Your task to perform on an android device: Search for usb-c to usb-a on ebay, select the first entry, add it to the cart, then select checkout. Image 0: 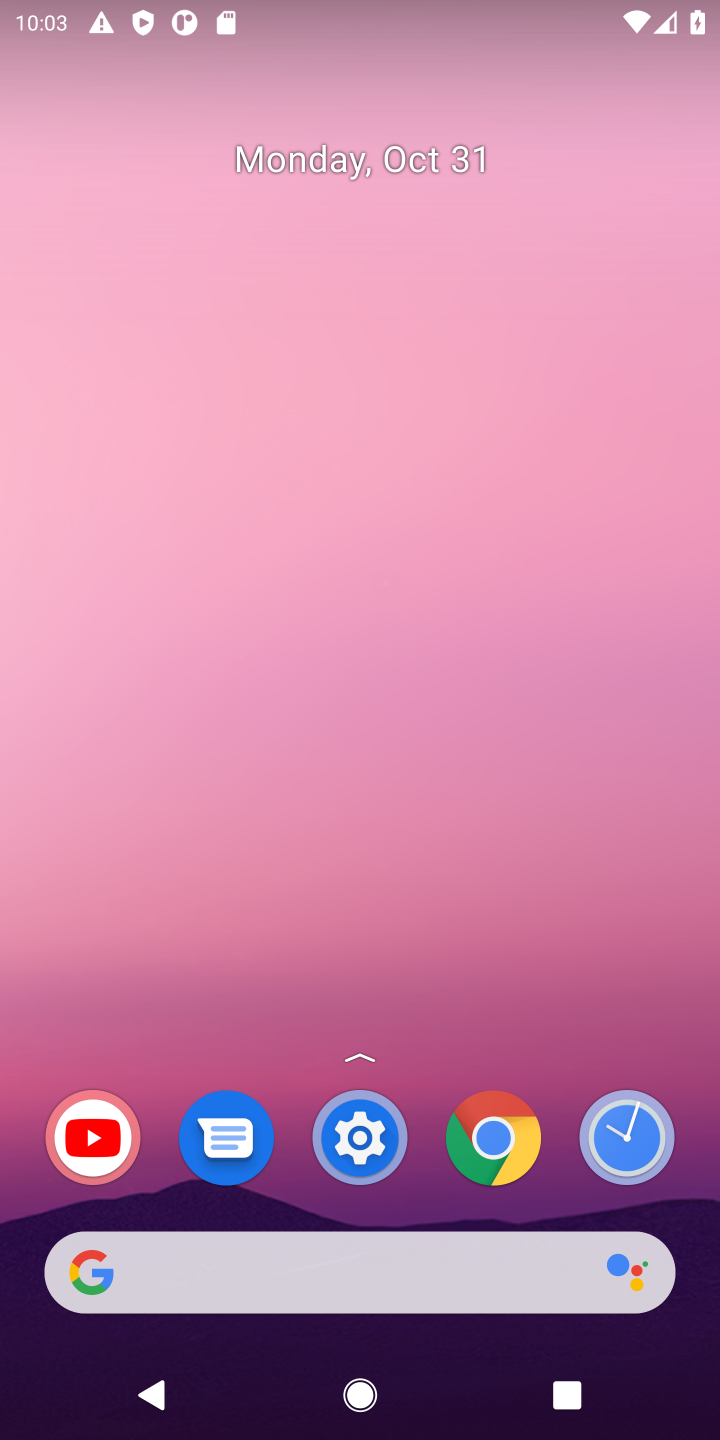
Step 0: click (469, 1114)
Your task to perform on an android device: Search for usb-c to usb-a on ebay, select the first entry, add it to the cart, then select checkout. Image 1: 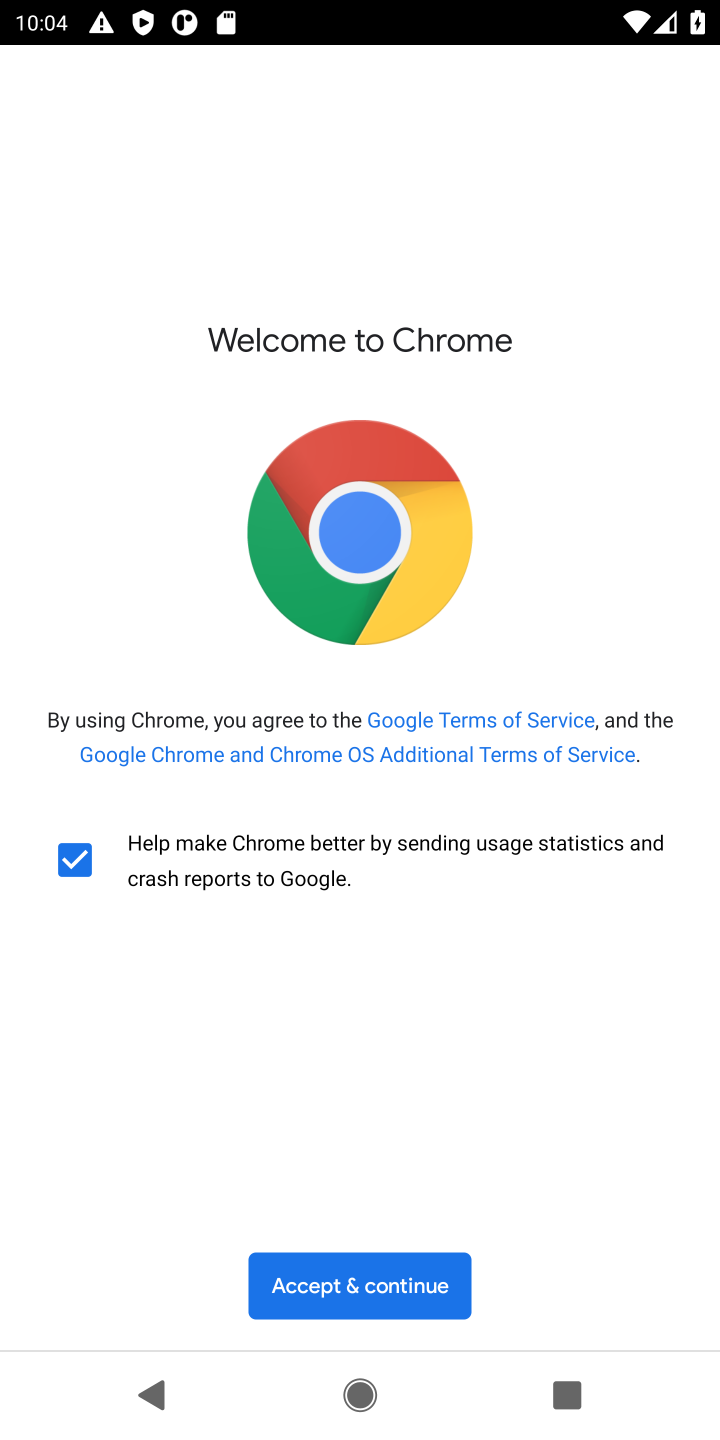
Step 1: click (291, 1286)
Your task to perform on an android device: Search for usb-c to usb-a on ebay, select the first entry, add it to the cart, then select checkout. Image 2: 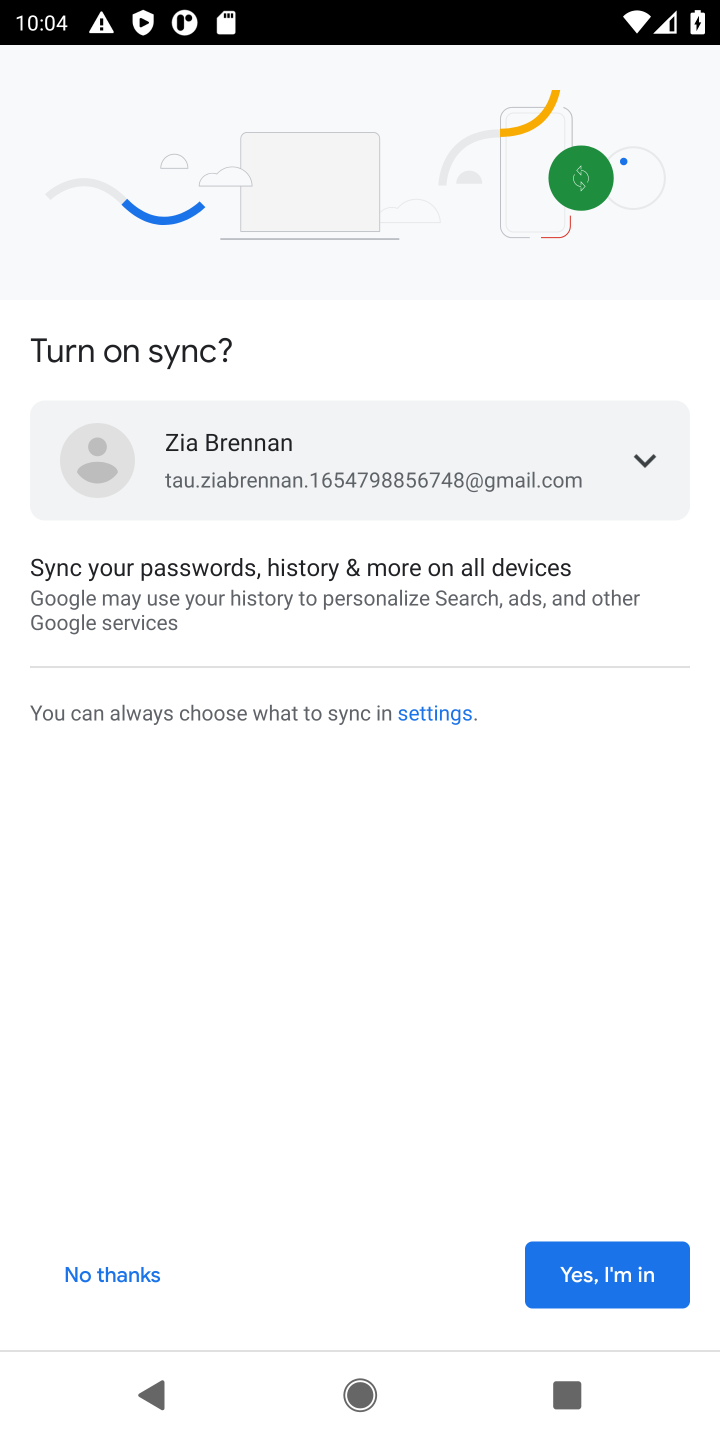
Step 2: click (605, 1290)
Your task to perform on an android device: Search for usb-c to usb-a on ebay, select the first entry, add it to the cart, then select checkout. Image 3: 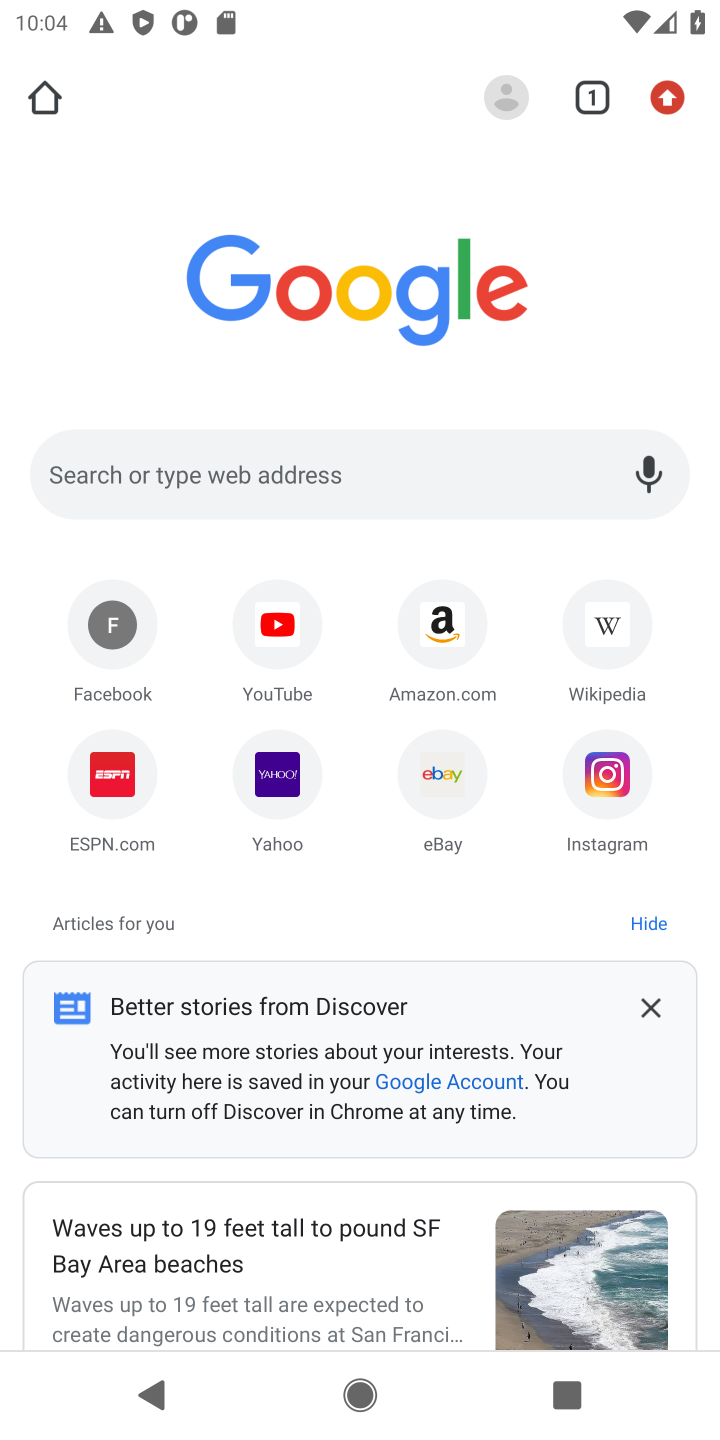
Step 3: click (531, 445)
Your task to perform on an android device: Search for usb-c to usb-a on ebay, select the first entry, add it to the cart, then select checkout. Image 4: 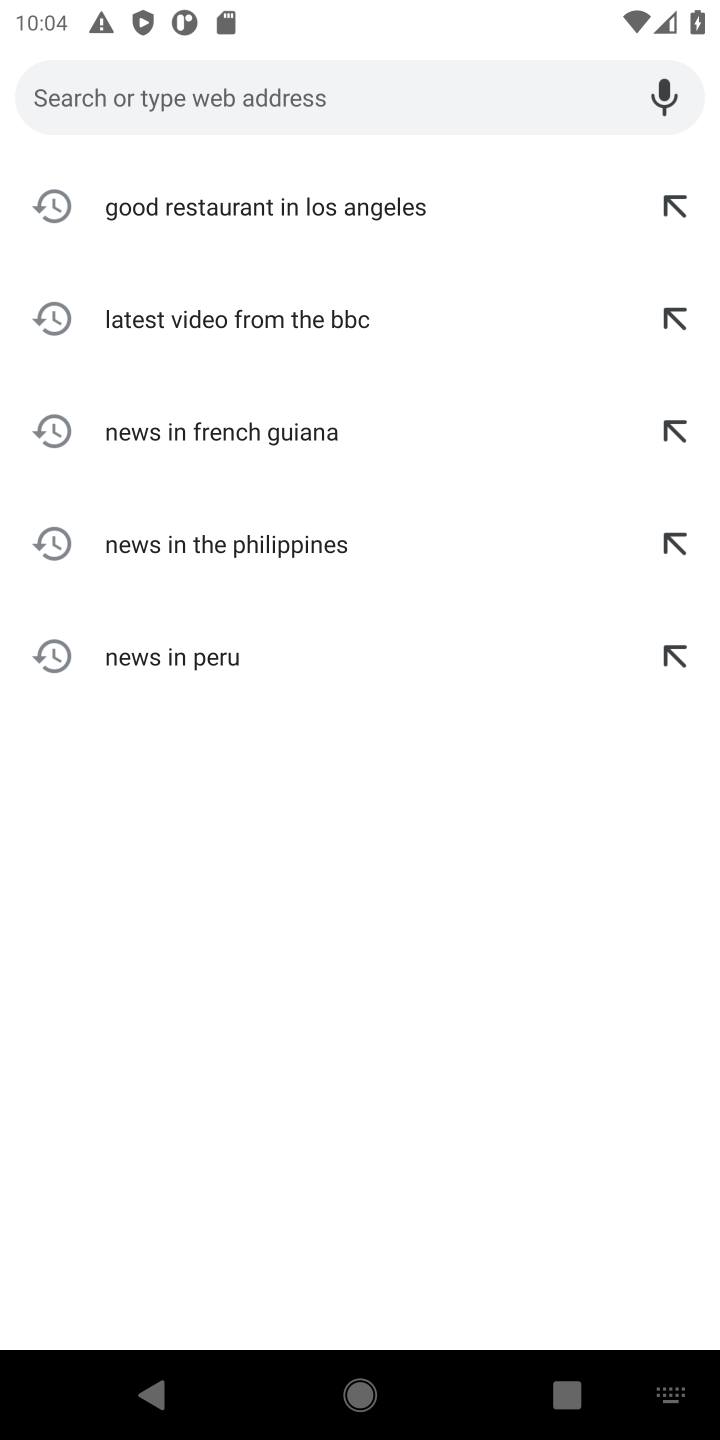
Step 4: press back button
Your task to perform on an android device: Search for usb-c to usb-a on ebay, select the first entry, add it to the cart, then select checkout. Image 5: 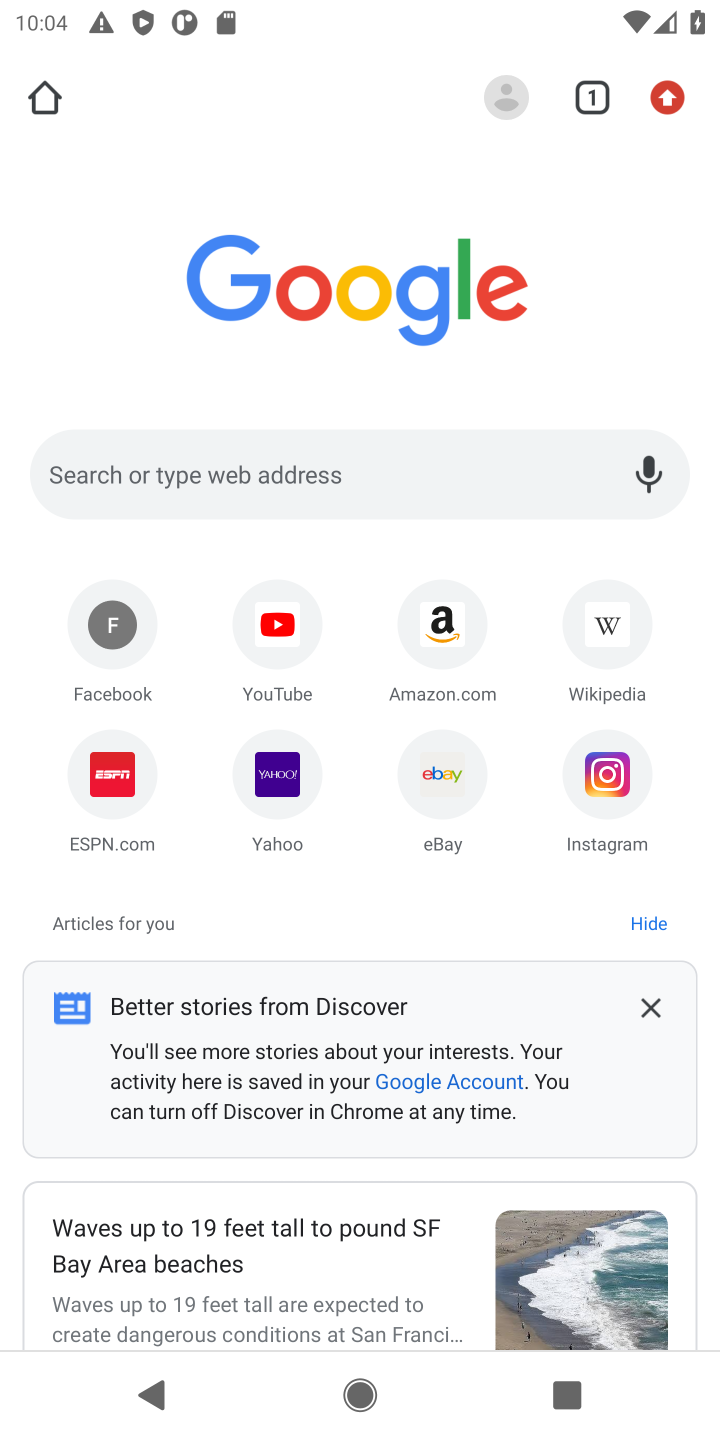
Step 5: click (463, 754)
Your task to perform on an android device: Search for usb-c to usb-a on ebay, select the first entry, add it to the cart, then select checkout. Image 6: 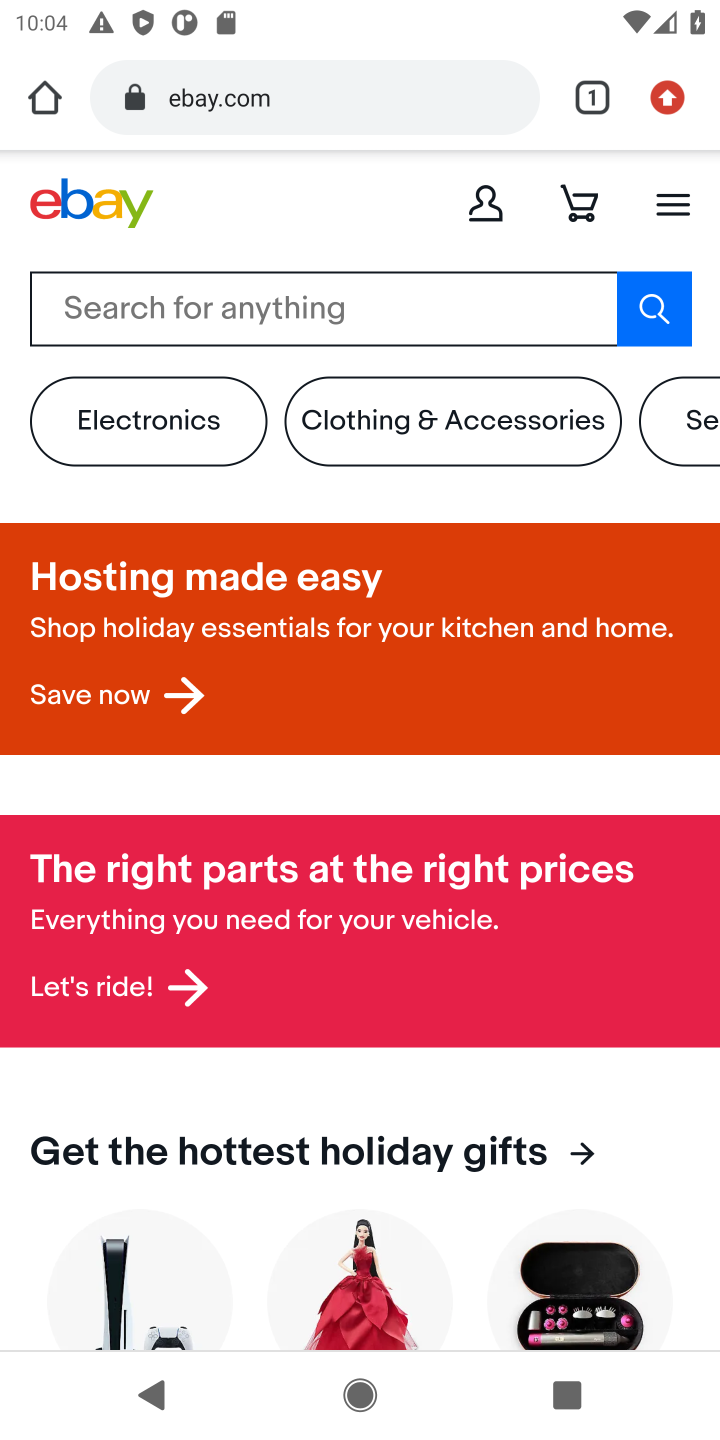
Step 6: click (413, 319)
Your task to perform on an android device: Search for usb-c to usb-a on ebay, select the first entry, add it to the cart, then select checkout. Image 7: 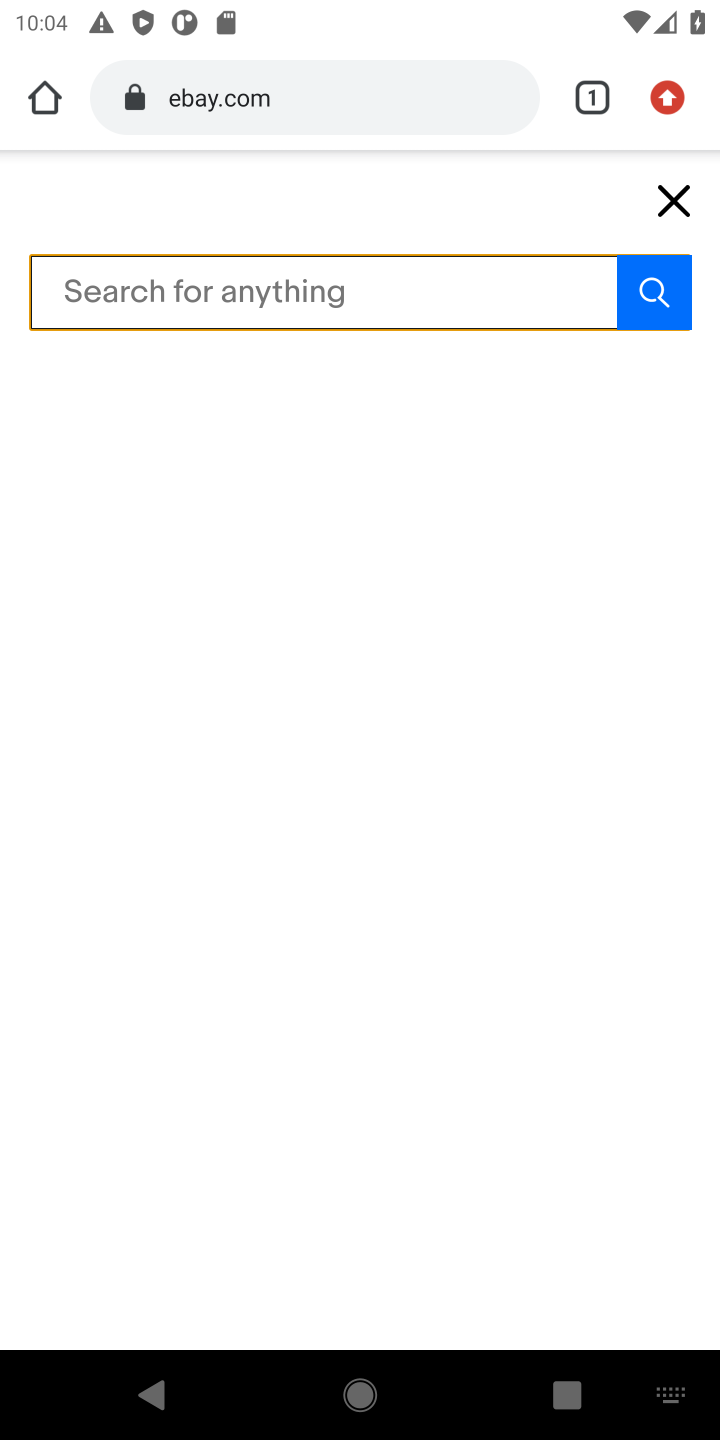
Step 7: type "usb-c to usb-a "
Your task to perform on an android device: Search for usb-c to usb-a on ebay, select the first entry, add it to the cart, then select checkout. Image 8: 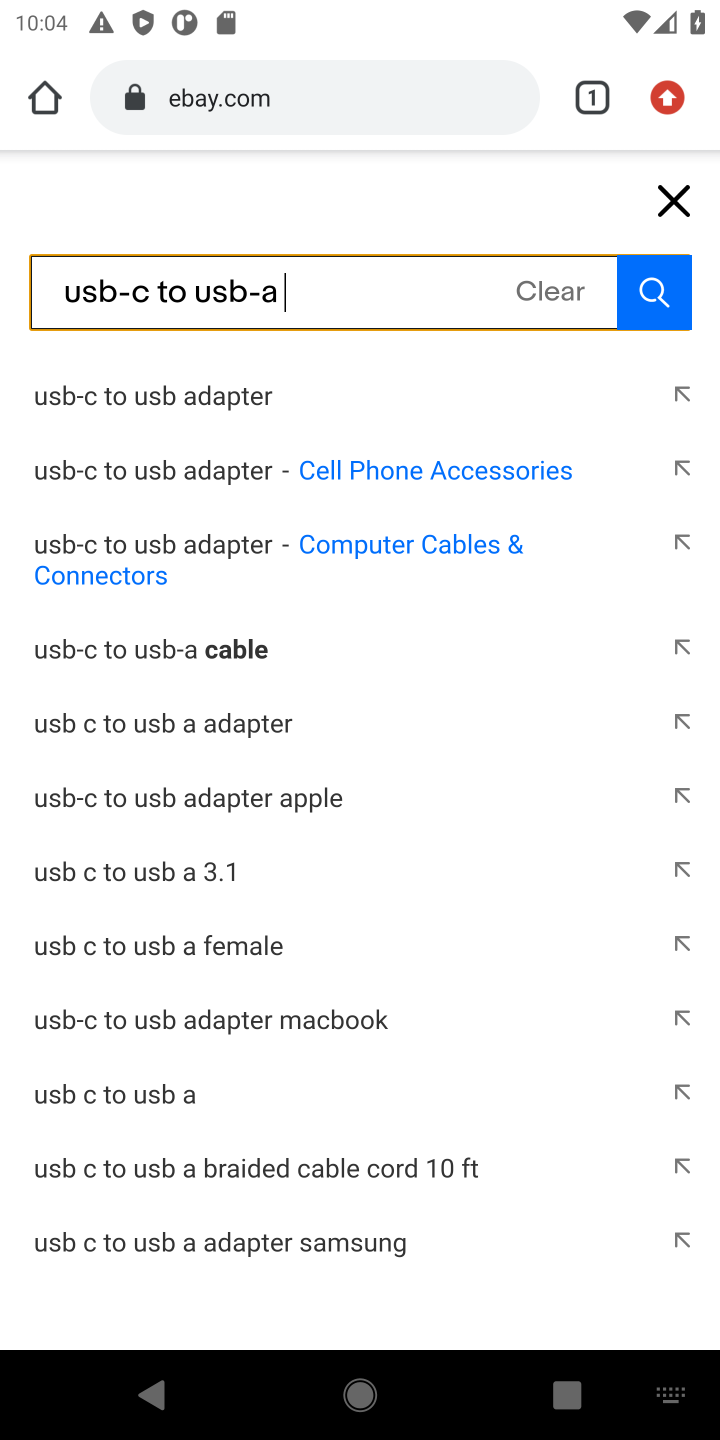
Step 8: click (645, 303)
Your task to perform on an android device: Search for usb-c to usb-a on ebay, select the first entry, add it to the cart, then select checkout. Image 9: 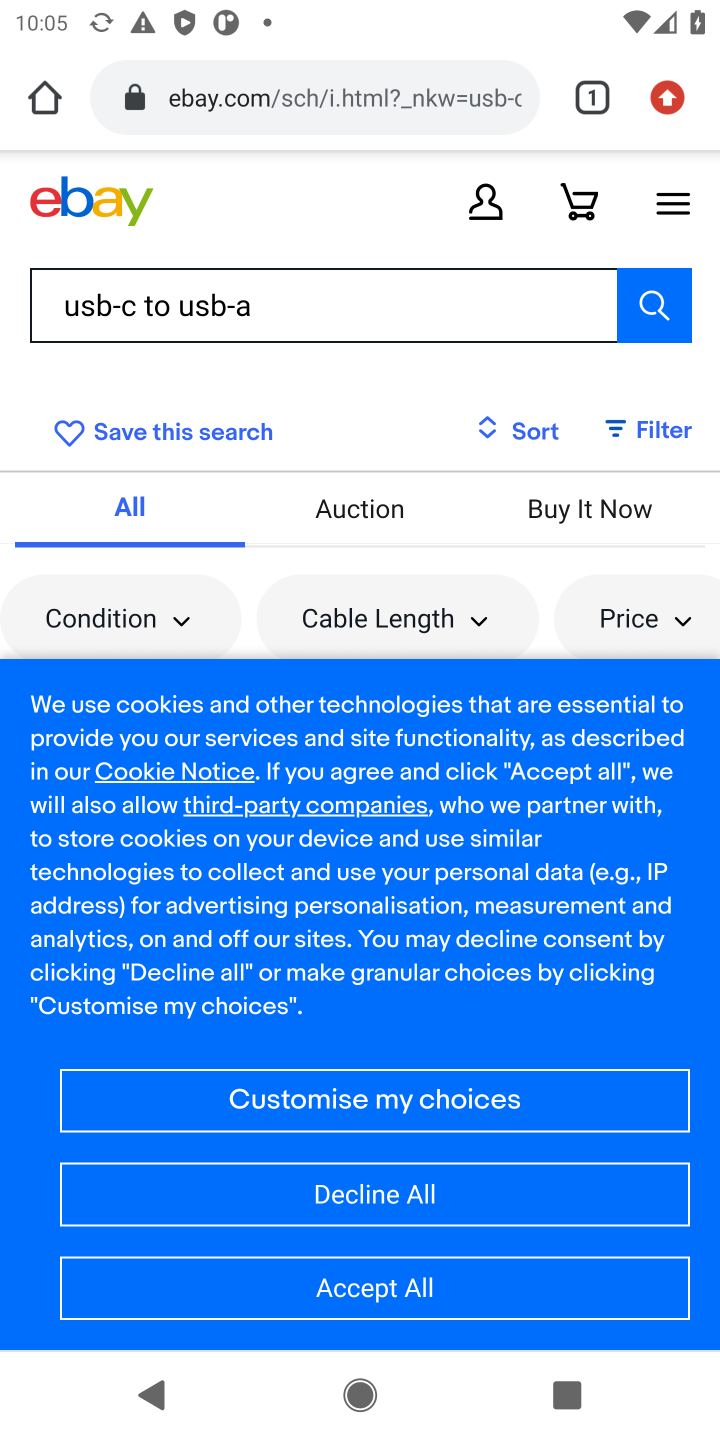
Step 9: click (515, 1277)
Your task to perform on an android device: Search for usb-c to usb-a on ebay, select the first entry, add it to the cart, then select checkout. Image 10: 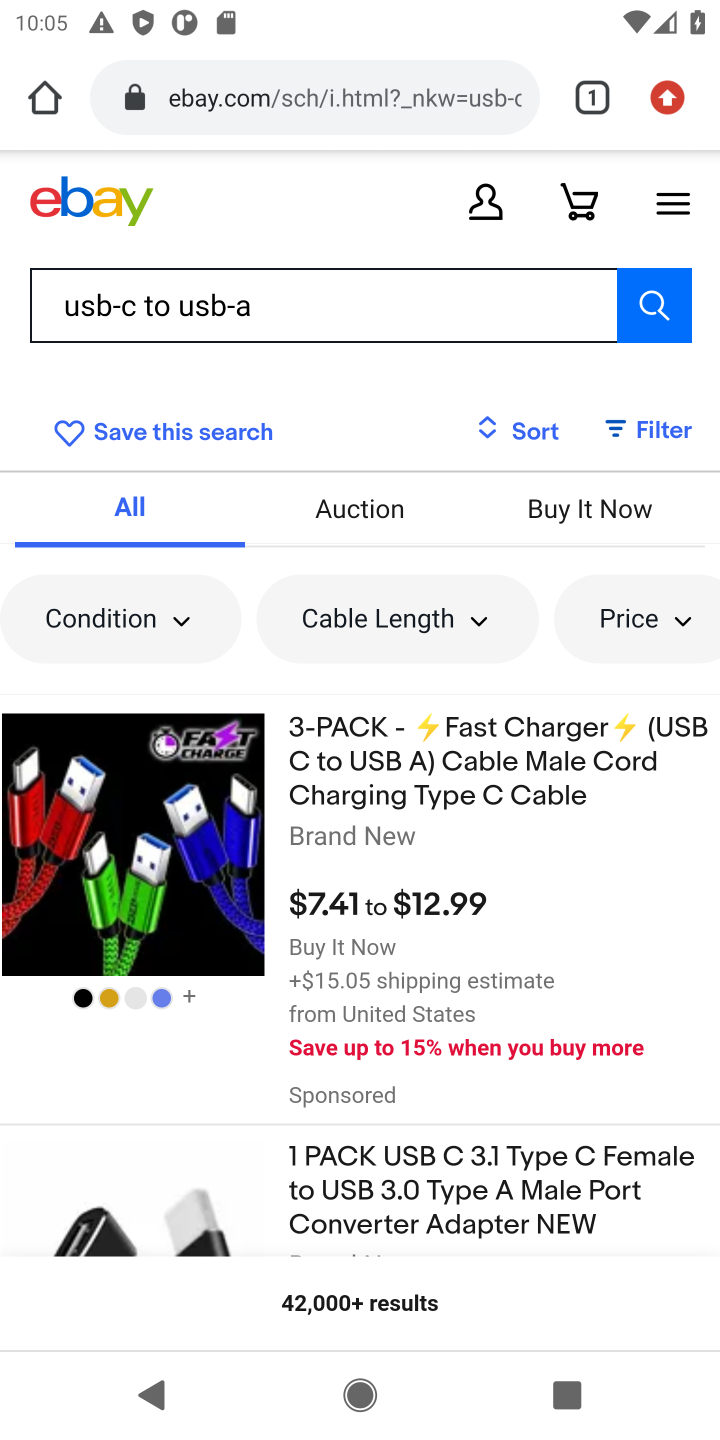
Step 10: click (118, 933)
Your task to perform on an android device: Search for usb-c to usb-a on ebay, select the first entry, add it to the cart, then select checkout. Image 11: 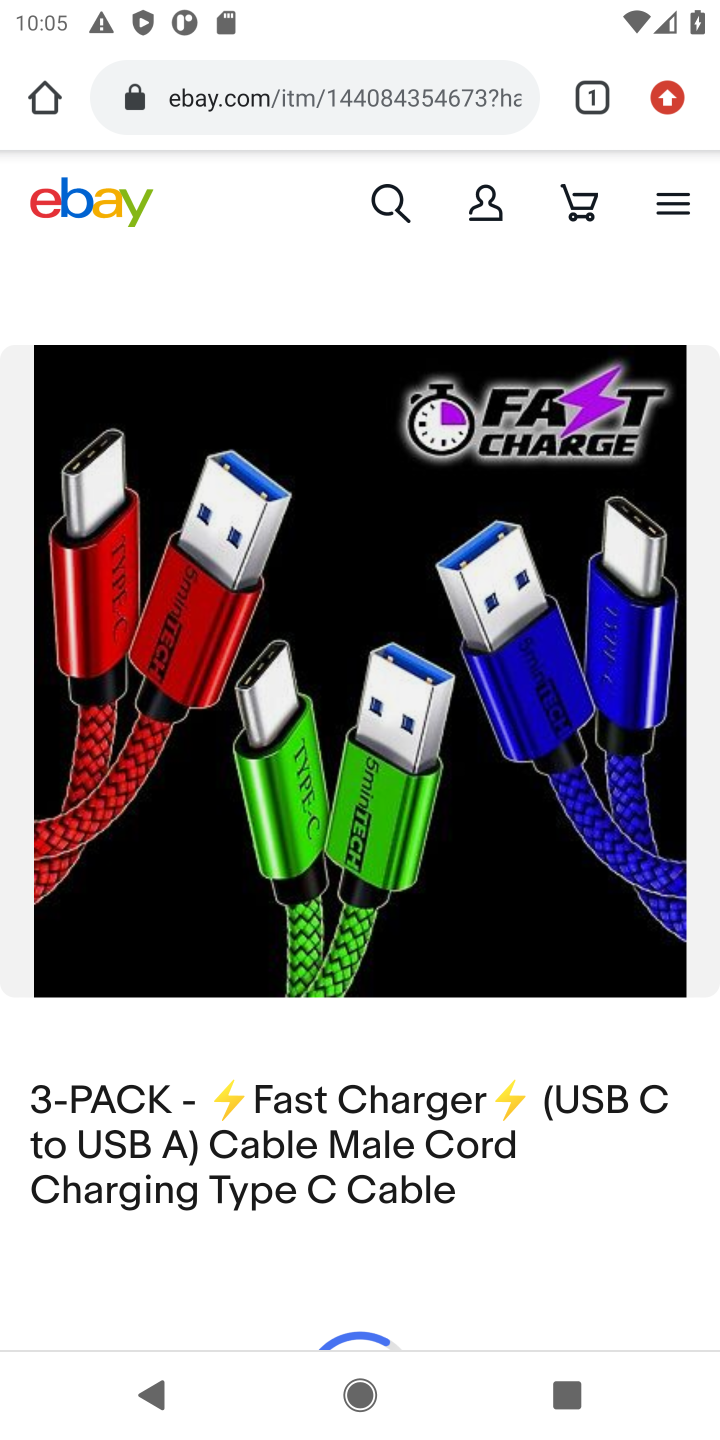
Step 11: drag from (492, 780) to (609, 281)
Your task to perform on an android device: Search for usb-c to usb-a on ebay, select the first entry, add it to the cart, then select checkout. Image 12: 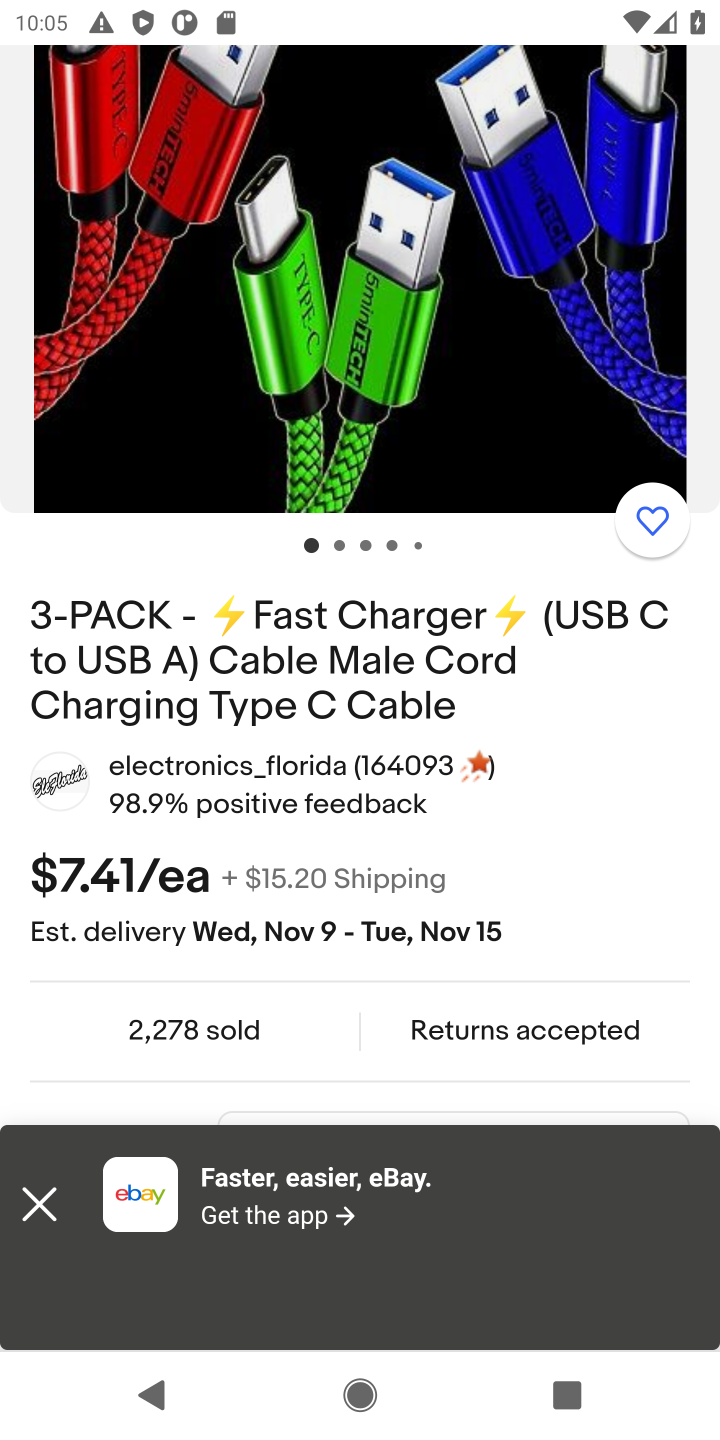
Step 12: drag from (494, 931) to (563, 351)
Your task to perform on an android device: Search for usb-c to usb-a on ebay, select the first entry, add it to the cart, then select checkout. Image 13: 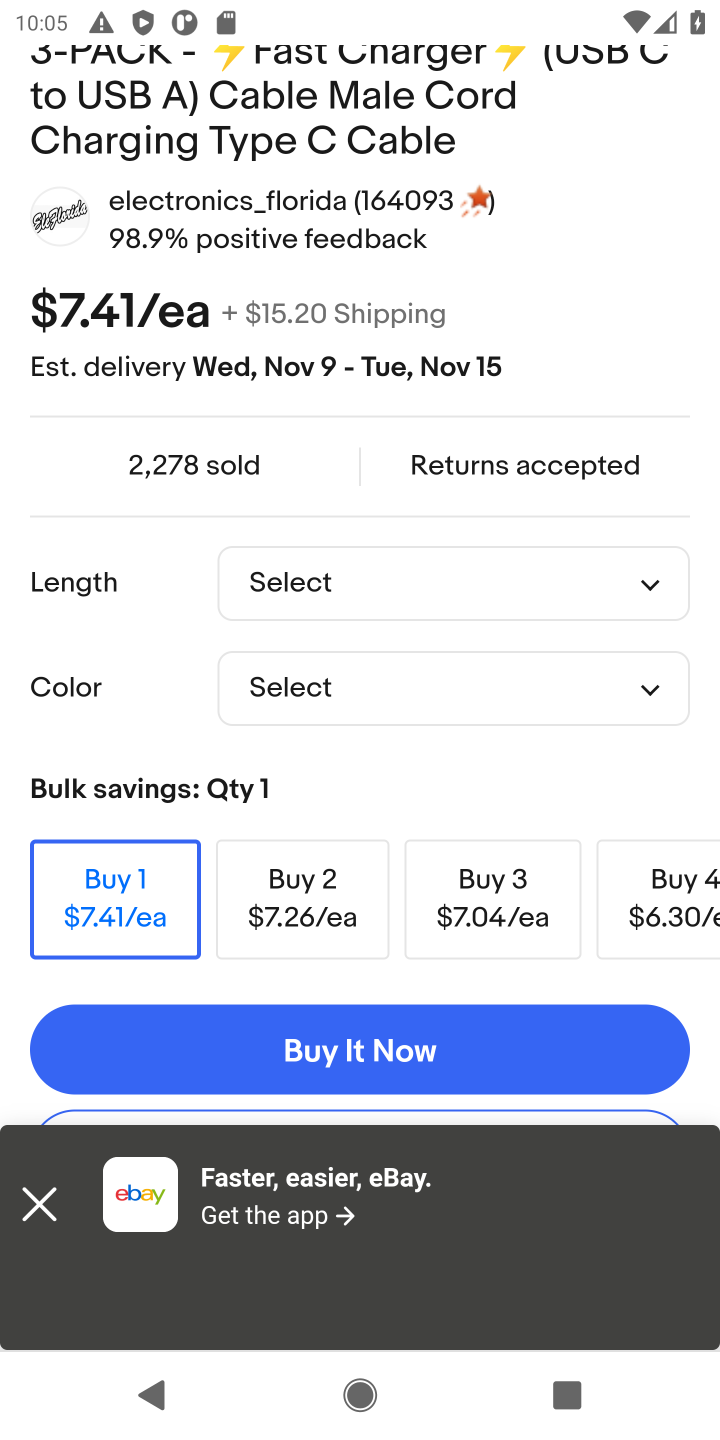
Step 13: click (35, 1201)
Your task to perform on an android device: Search for usb-c to usb-a on ebay, select the first entry, add it to the cart, then select checkout. Image 14: 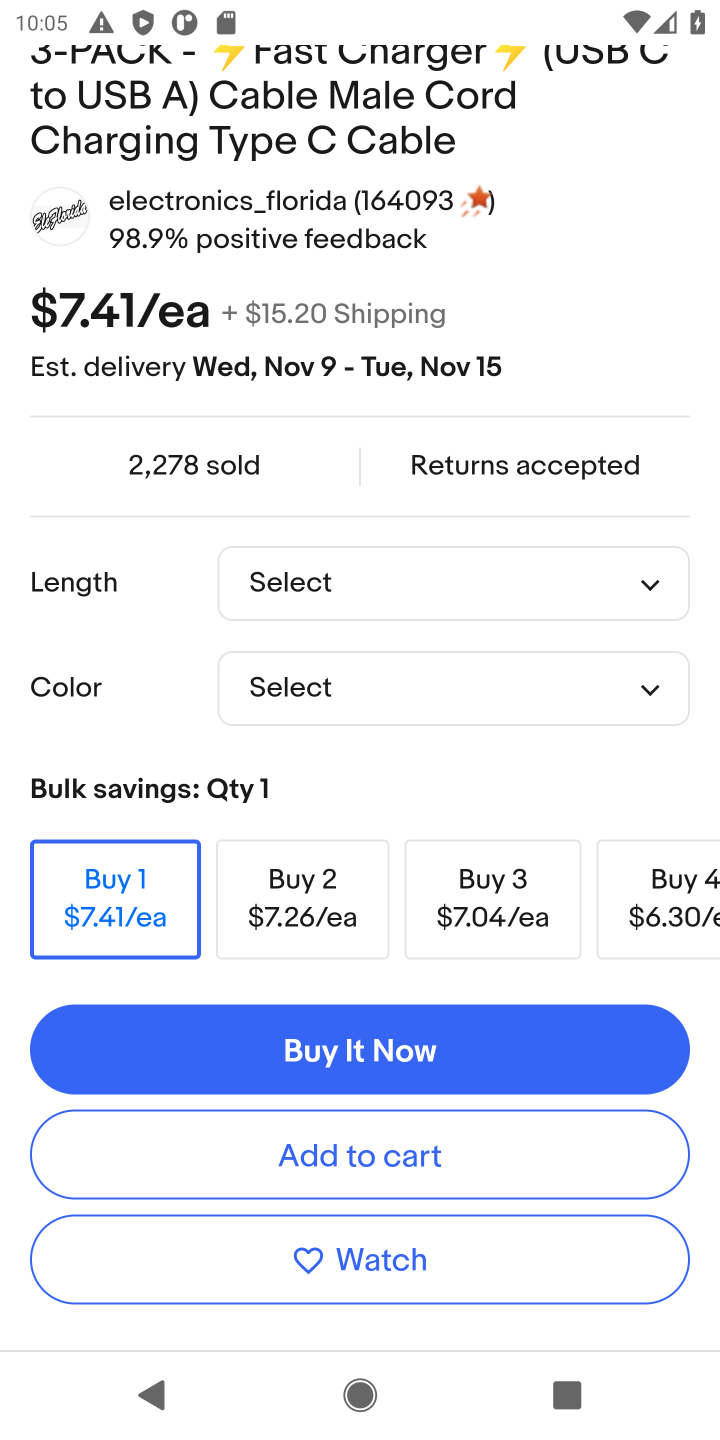
Step 14: click (323, 1162)
Your task to perform on an android device: Search for usb-c to usb-a on ebay, select the first entry, add it to the cart, then select checkout. Image 15: 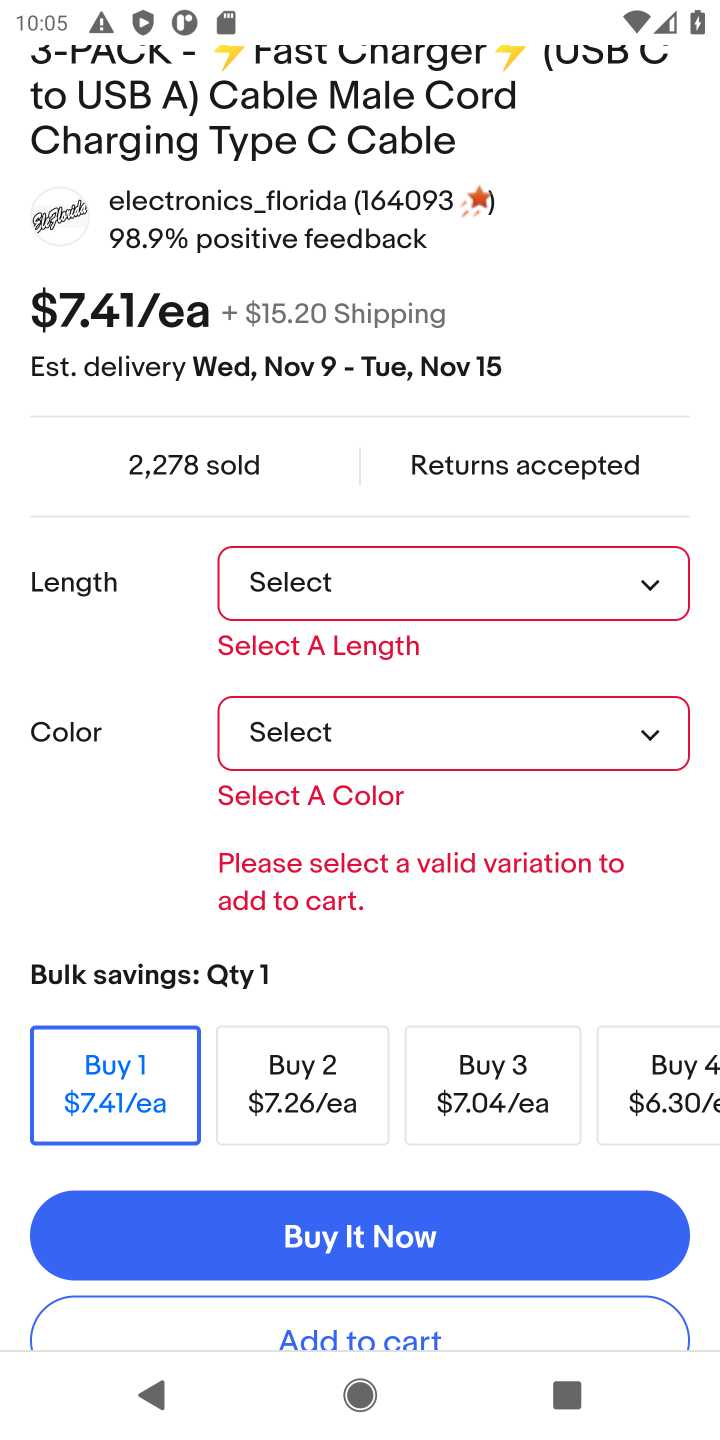
Step 15: click (530, 590)
Your task to perform on an android device: Search for usb-c to usb-a on ebay, select the first entry, add it to the cart, then select checkout. Image 16: 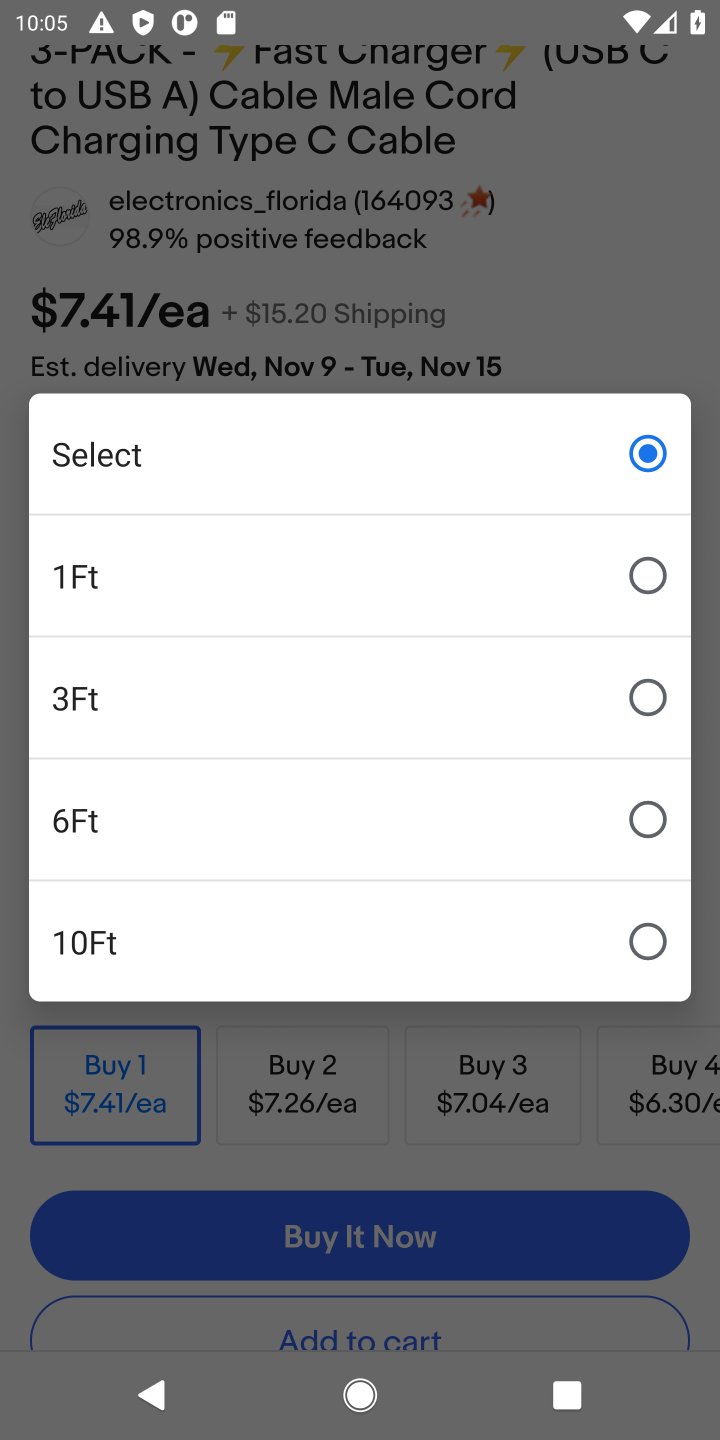
Step 16: click (657, 944)
Your task to perform on an android device: Search for usb-c to usb-a on ebay, select the first entry, add it to the cart, then select checkout. Image 17: 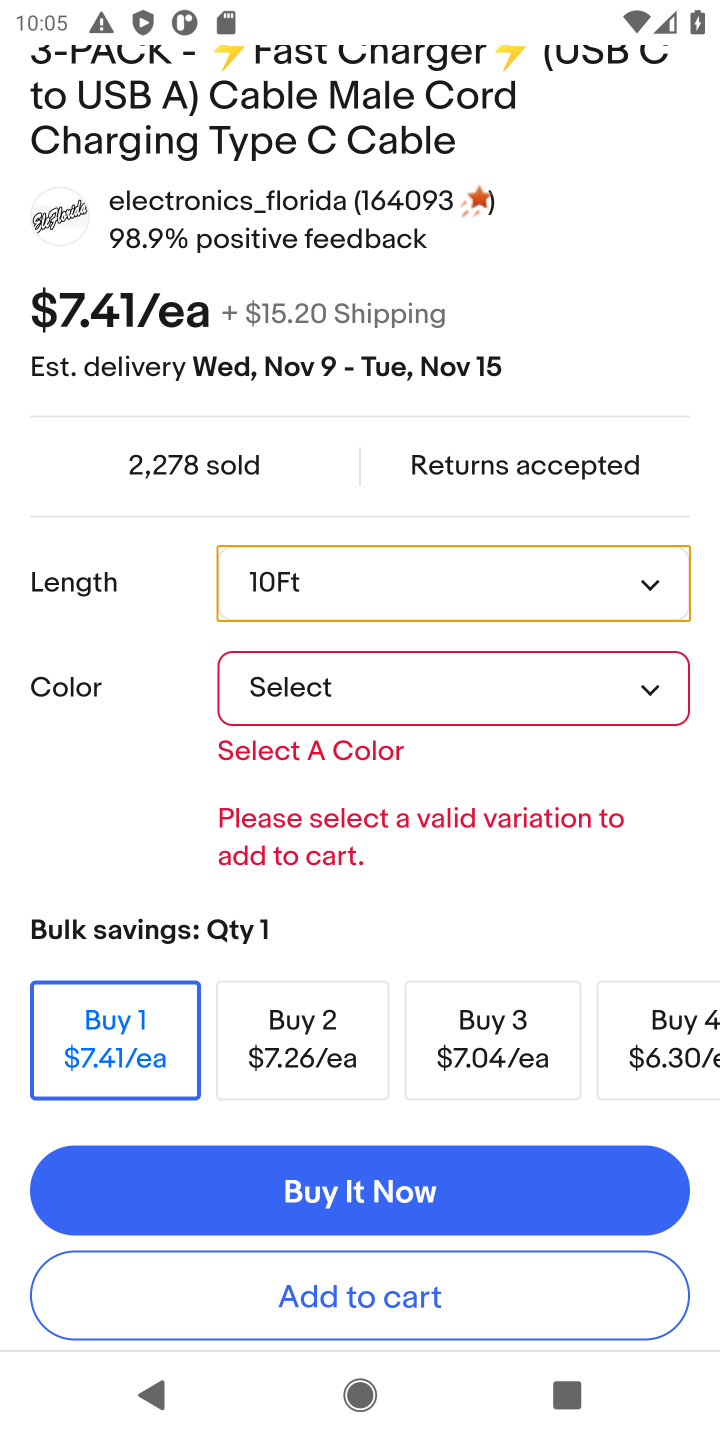
Step 17: click (484, 687)
Your task to perform on an android device: Search for usb-c to usb-a on ebay, select the first entry, add it to the cart, then select checkout. Image 18: 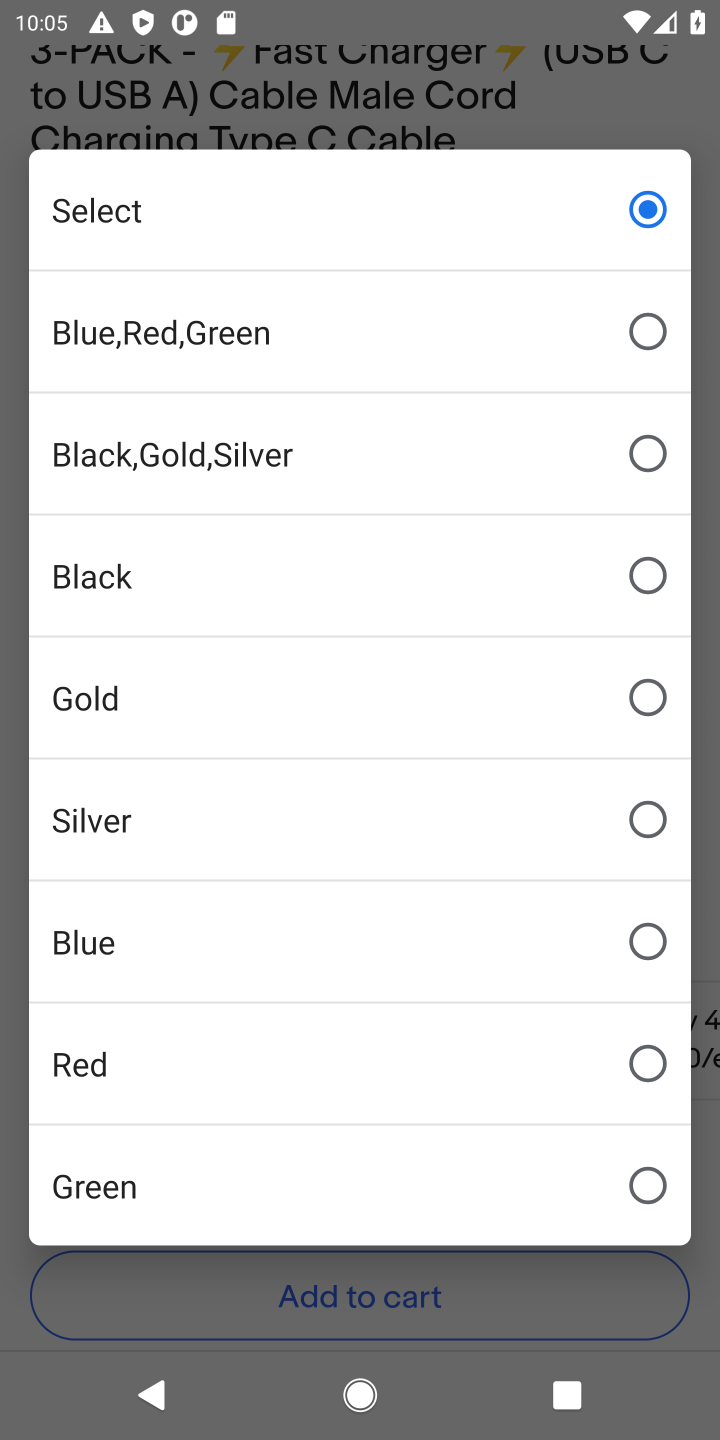
Step 18: click (655, 464)
Your task to perform on an android device: Search for usb-c to usb-a on ebay, select the first entry, add it to the cart, then select checkout. Image 19: 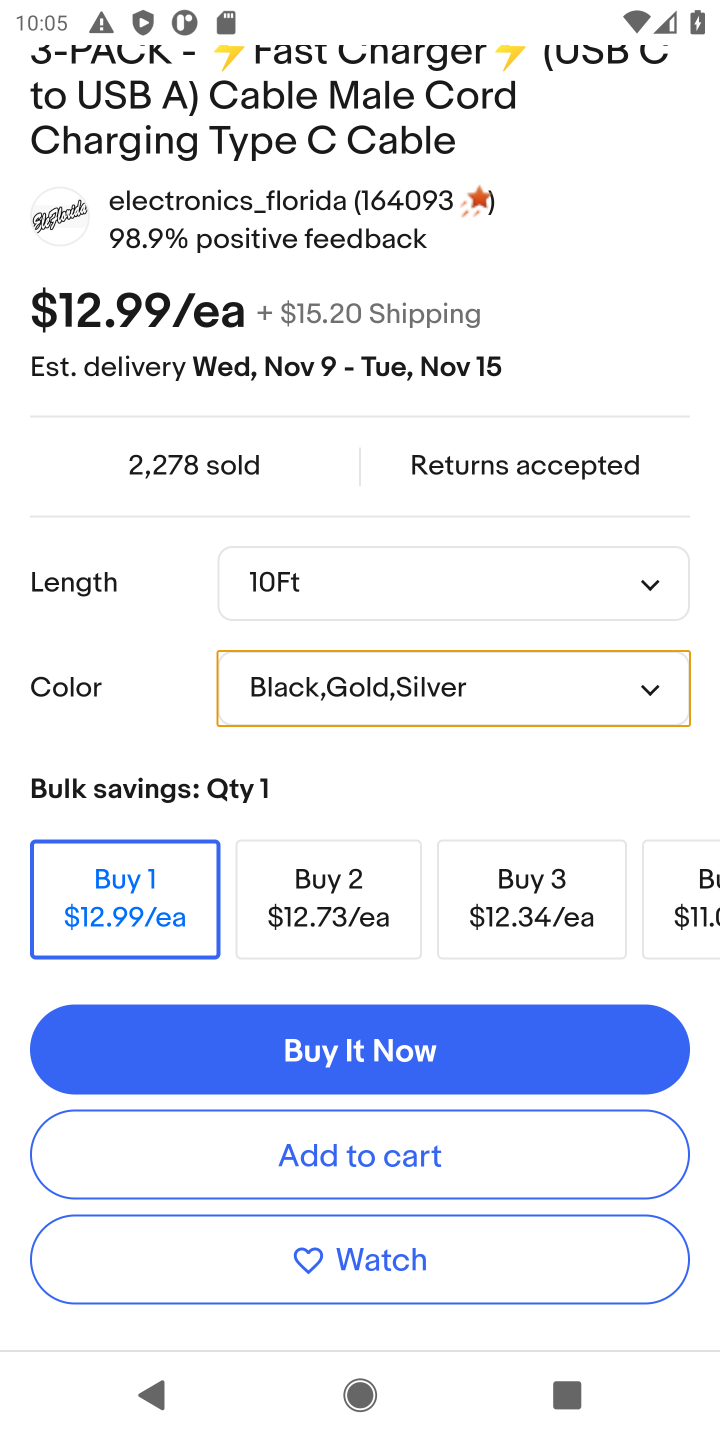
Step 19: click (478, 1129)
Your task to perform on an android device: Search for usb-c to usb-a on ebay, select the first entry, add it to the cart, then select checkout. Image 20: 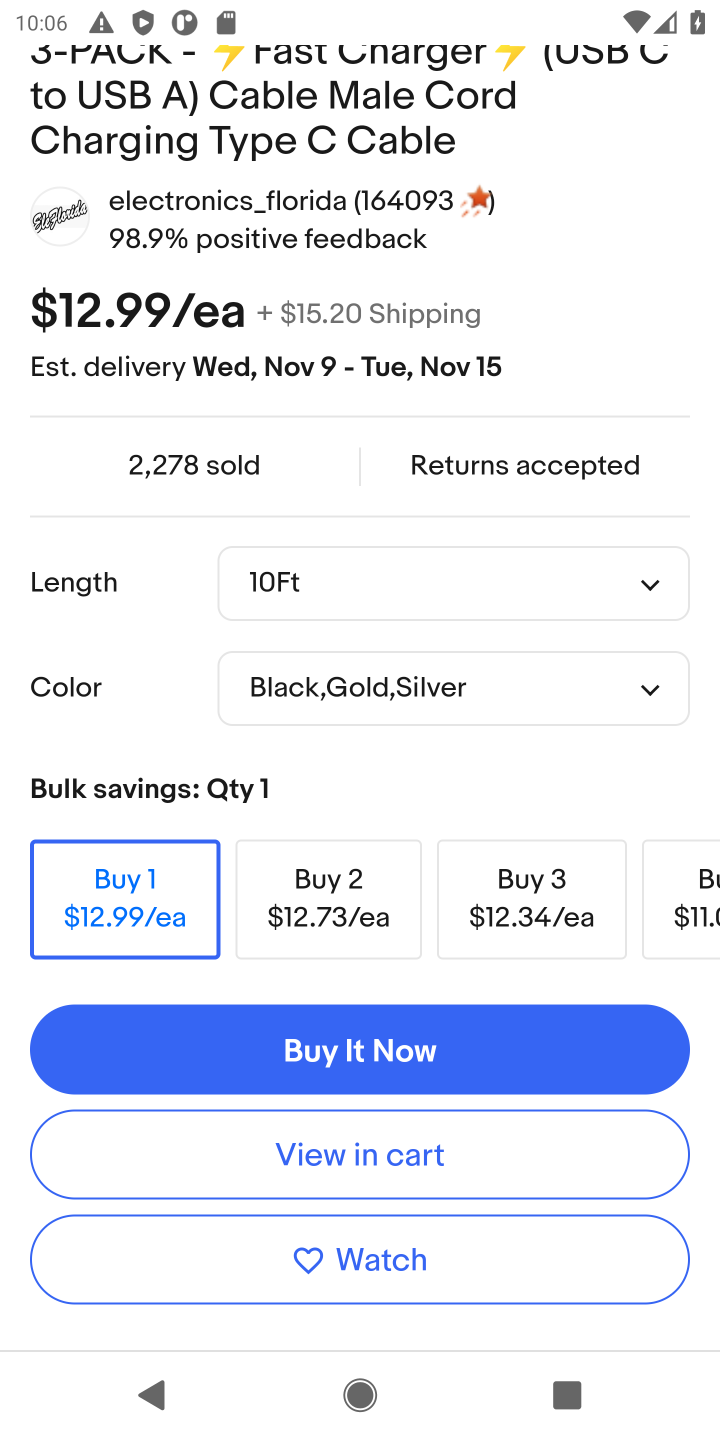
Step 20: click (478, 1129)
Your task to perform on an android device: Search for usb-c to usb-a on ebay, select the first entry, add it to the cart, then select checkout. Image 21: 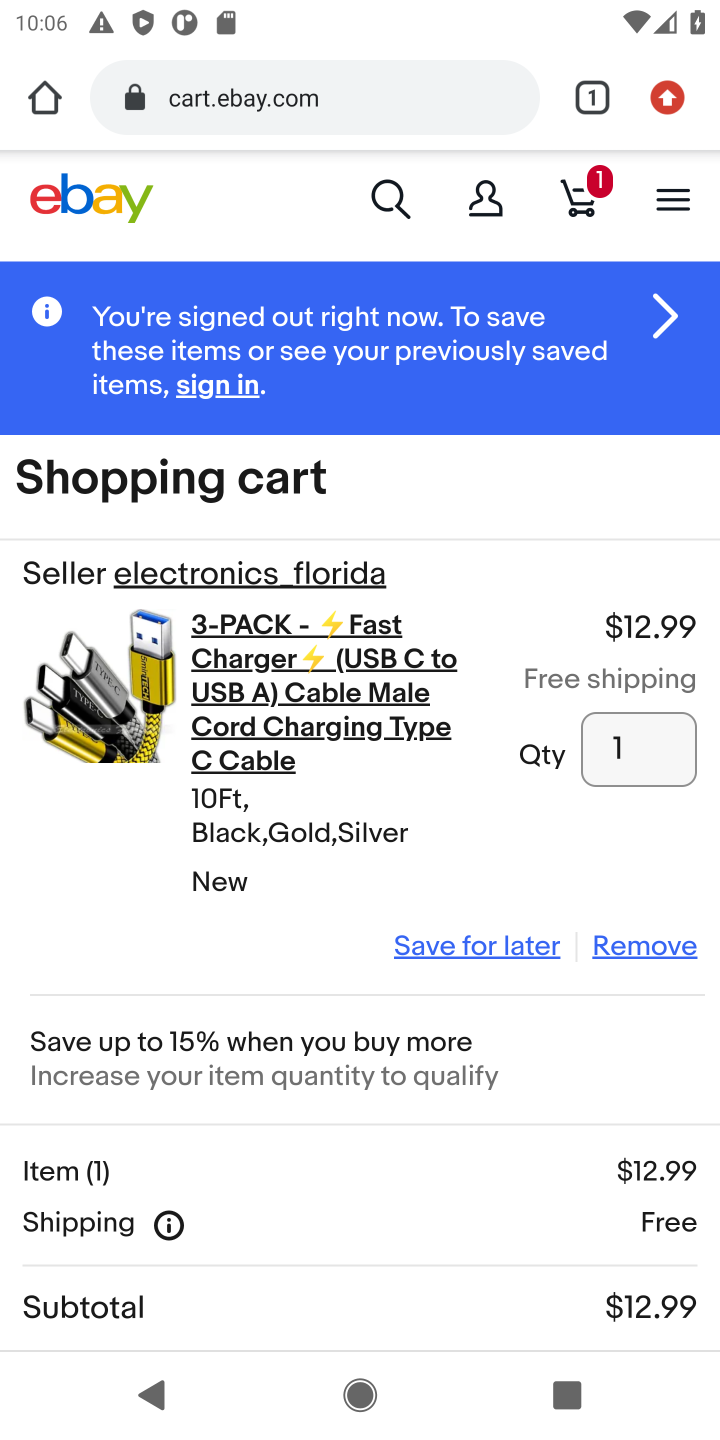
Step 21: drag from (318, 1252) to (429, 702)
Your task to perform on an android device: Search for usb-c to usb-a on ebay, select the first entry, add it to the cart, then select checkout. Image 22: 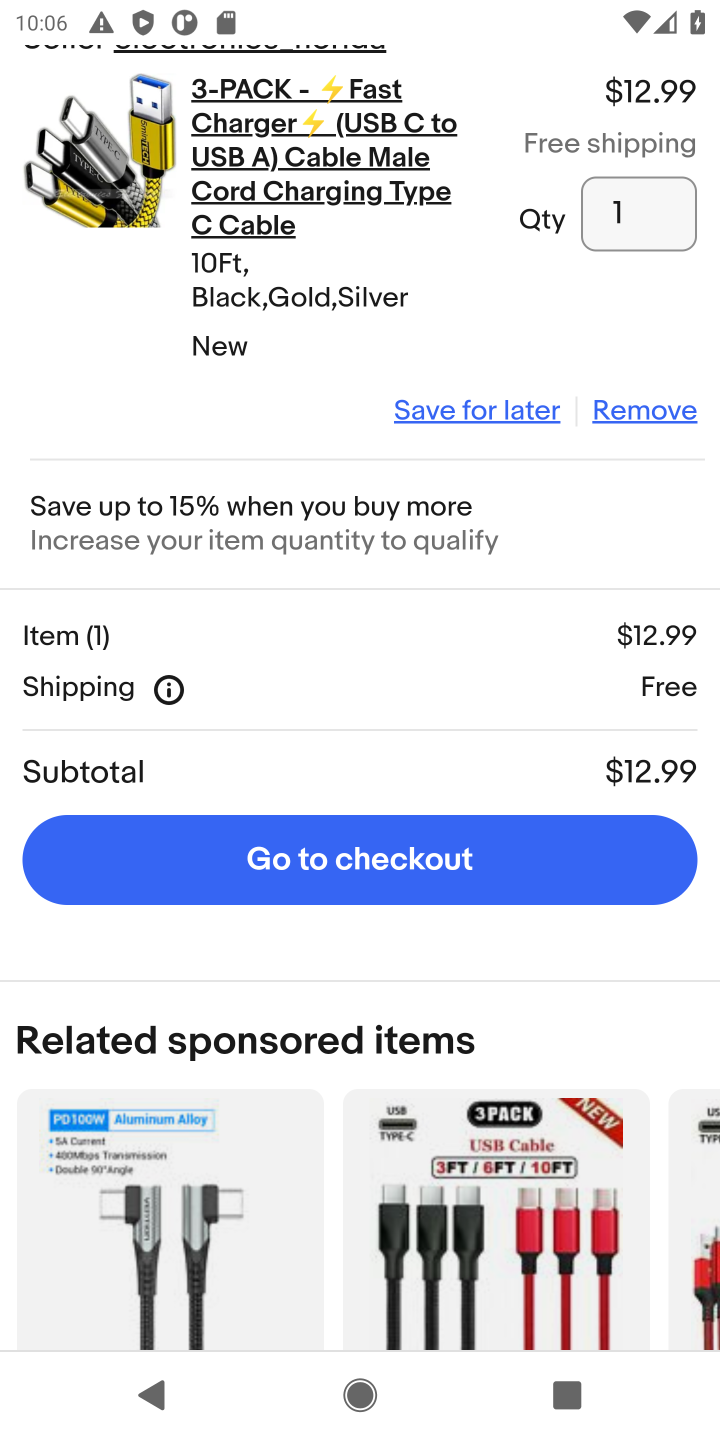
Step 22: click (496, 871)
Your task to perform on an android device: Search for usb-c to usb-a on ebay, select the first entry, add it to the cart, then select checkout. Image 23: 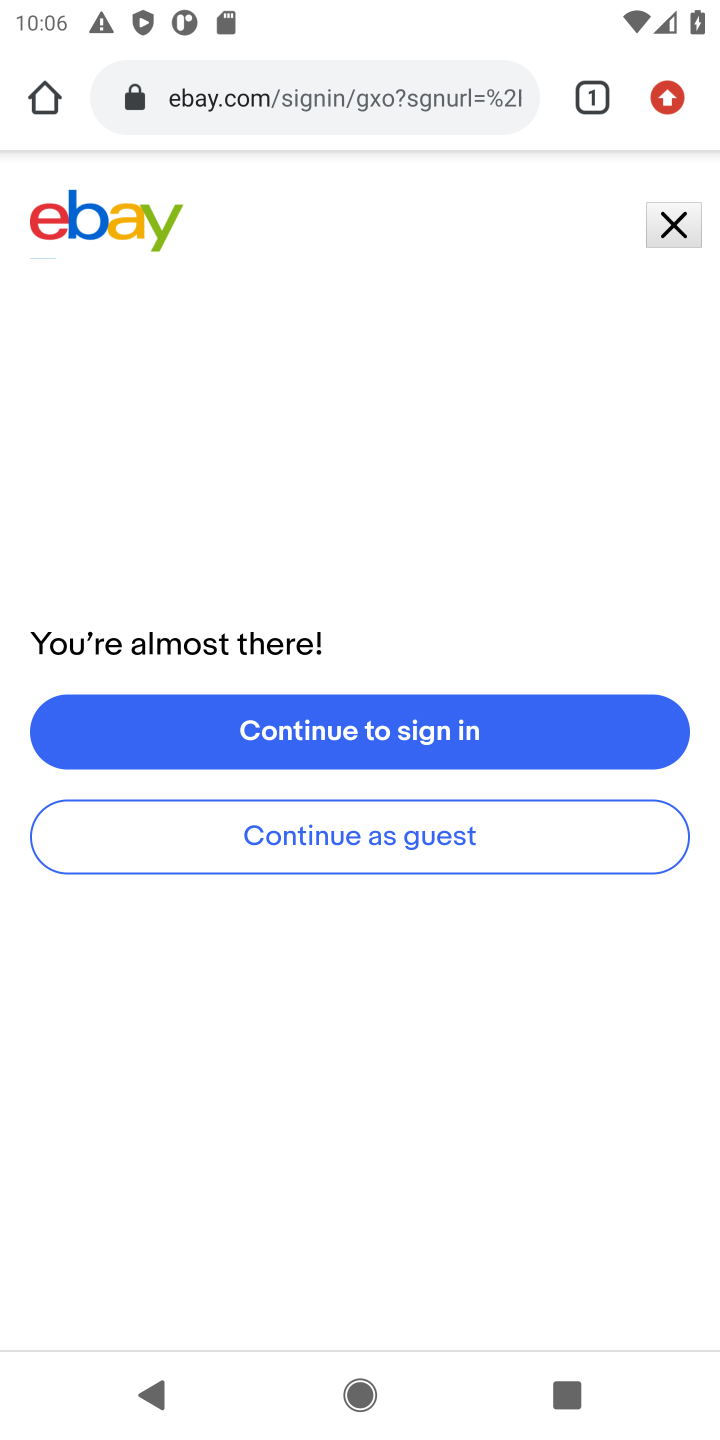
Step 23: task complete